Your task to perform on an android device: add a label to a message in the gmail app Image 0: 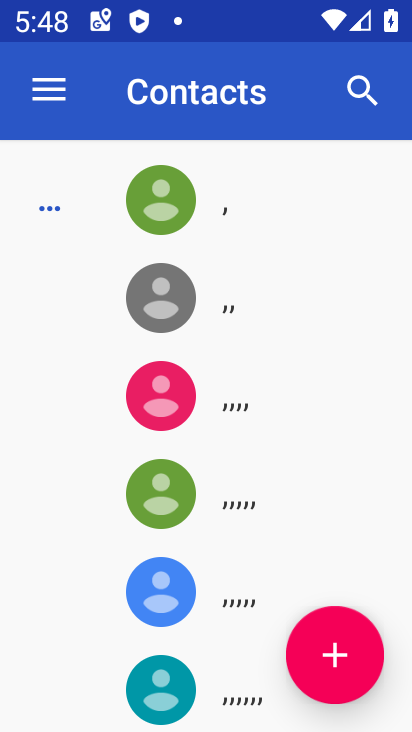
Step 0: press home button
Your task to perform on an android device: add a label to a message in the gmail app Image 1: 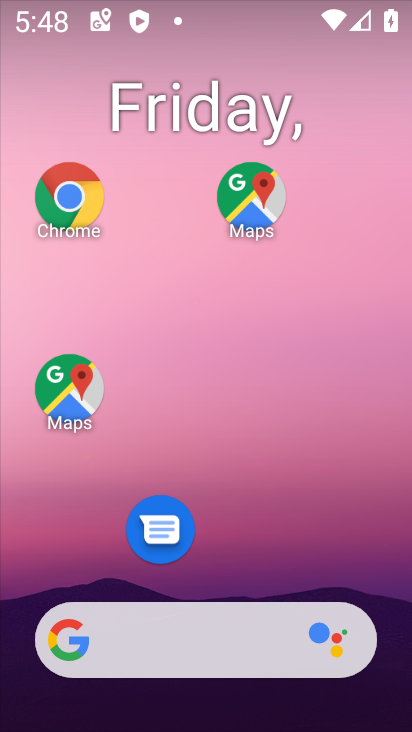
Step 1: drag from (248, 136) to (244, 100)
Your task to perform on an android device: add a label to a message in the gmail app Image 2: 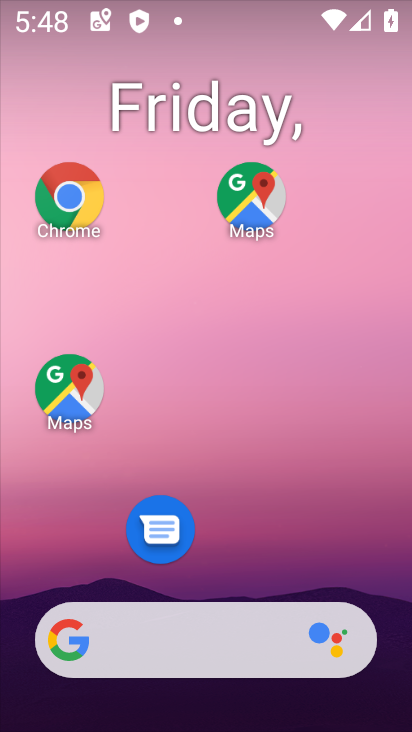
Step 2: drag from (258, 552) to (254, 137)
Your task to perform on an android device: add a label to a message in the gmail app Image 3: 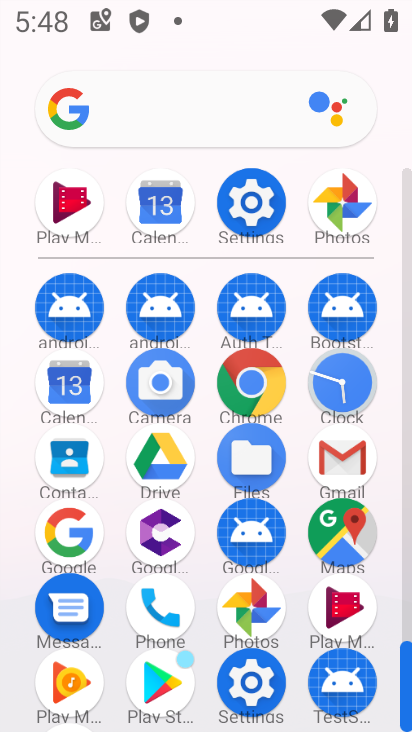
Step 3: click (354, 473)
Your task to perform on an android device: add a label to a message in the gmail app Image 4: 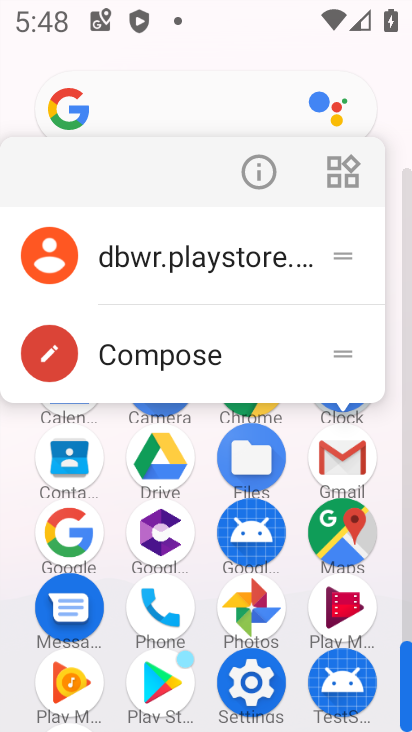
Step 4: click (336, 466)
Your task to perform on an android device: add a label to a message in the gmail app Image 5: 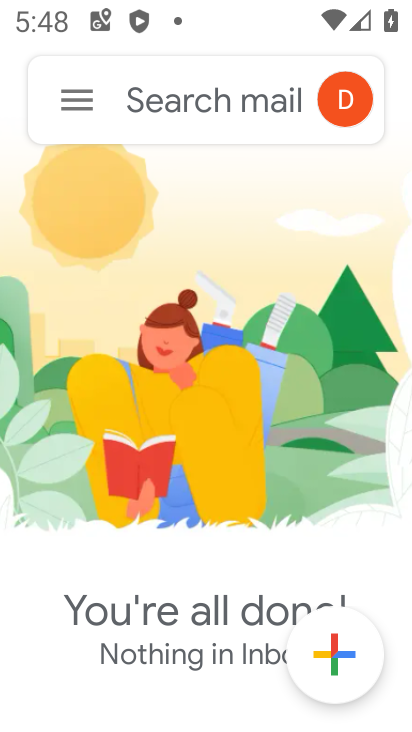
Step 5: click (79, 113)
Your task to perform on an android device: add a label to a message in the gmail app Image 6: 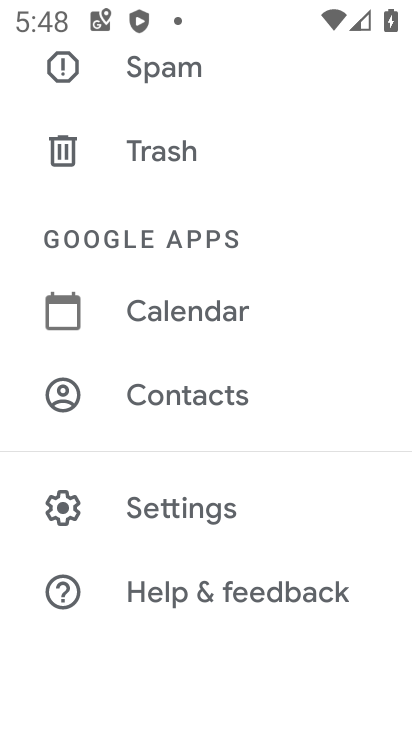
Step 6: drag from (191, 151) to (180, 394)
Your task to perform on an android device: add a label to a message in the gmail app Image 7: 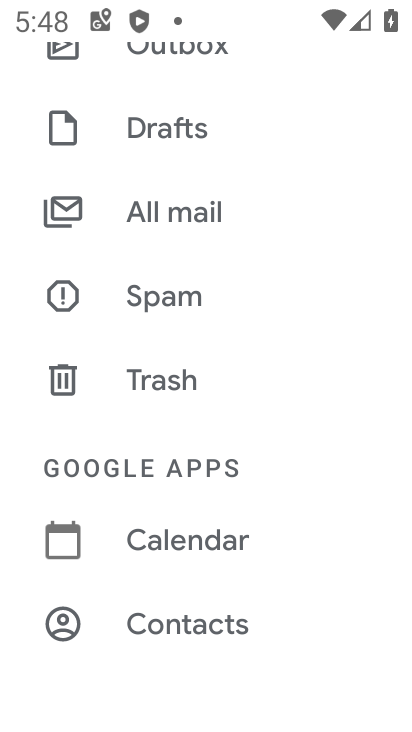
Step 7: click (195, 215)
Your task to perform on an android device: add a label to a message in the gmail app Image 8: 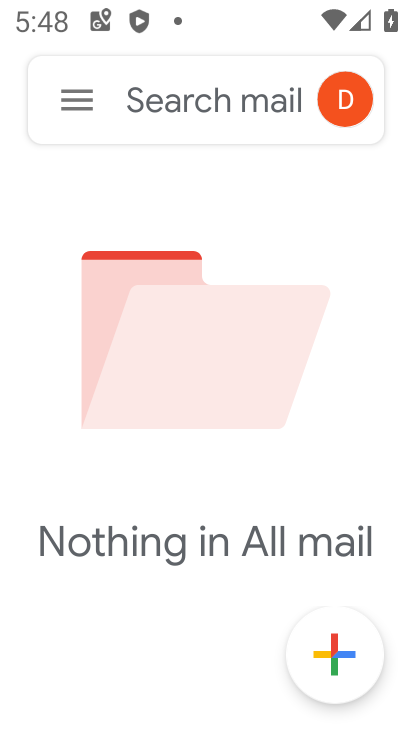
Step 8: task complete